Your task to perform on an android device: Toggle the flashlight Image 0: 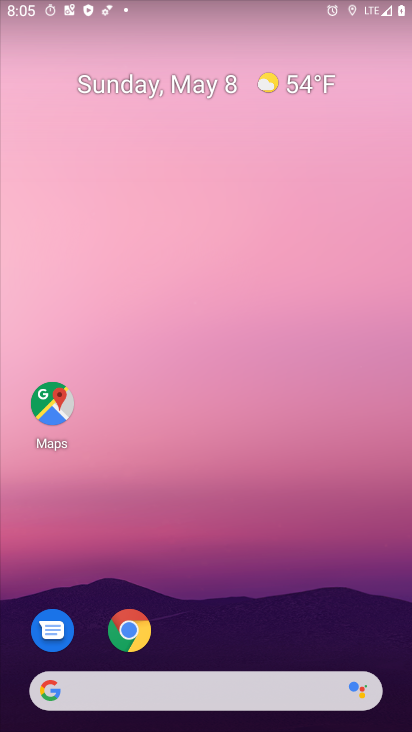
Step 0: drag from (215, 658) to (132, 2)
Your task to perform on an android device: Toggle the flashlight Image 1: 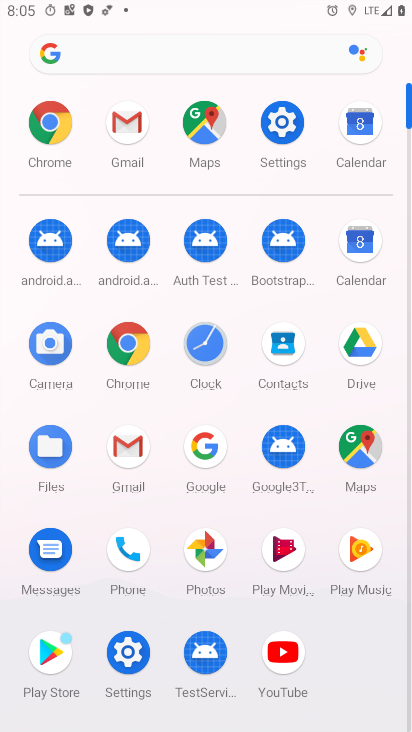
Step 1: click (276, 119)
Your task to perform on an android device: Toggle the flashlight Image 2: 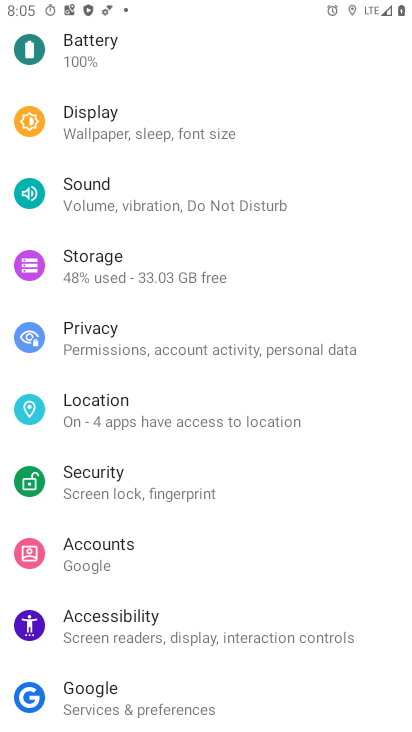
Step 2: drag from (137, 563) to (75, 63)
Your task to perform on an android device: Toggle the flashlight Image 3: 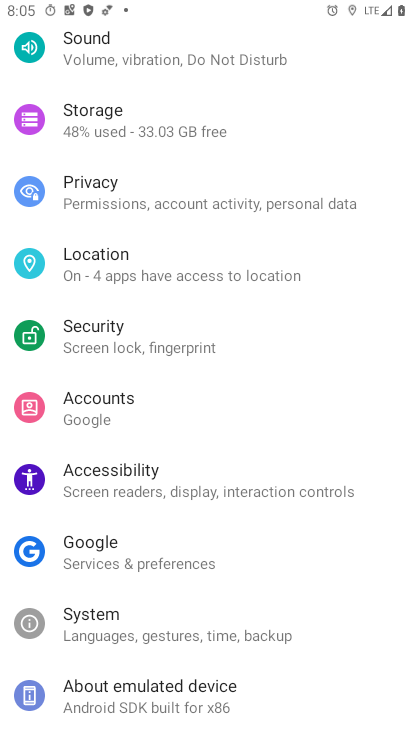
Step 3: drag from (145, 134) to (124, 717)
Your task to perform on an android device: Toggle the flashlight Image 4: 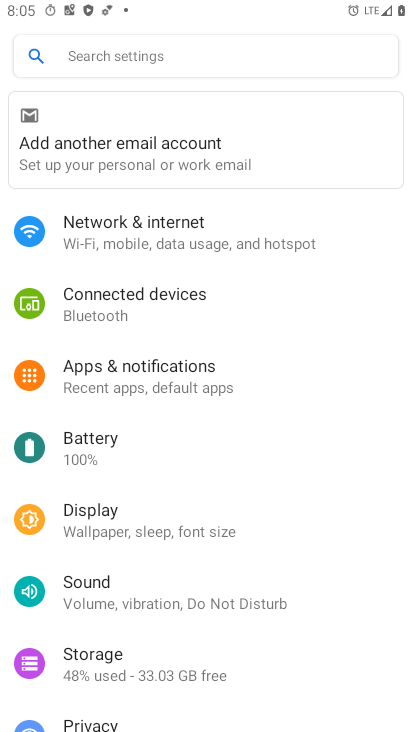
Step 4: click (118, 59)
Your task to perform on an android device: Toggle the flashlight Image 5: 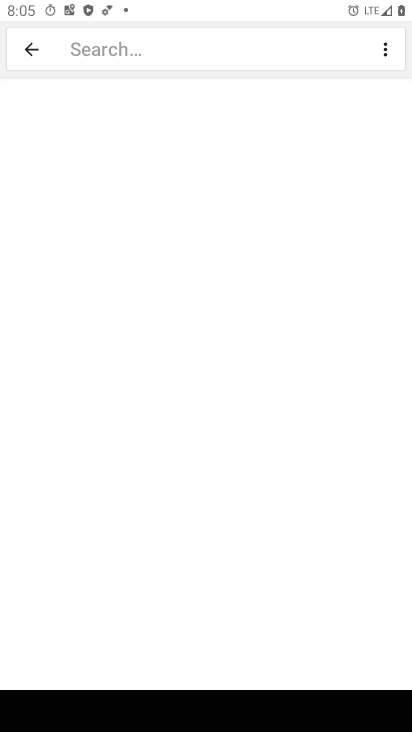
Step 5: type ""
Your task to perform on an android device: Toggle the flashlight Image 6: 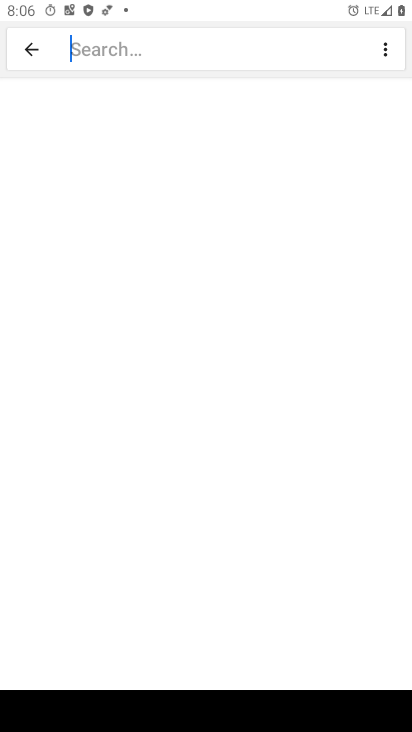
Step 6: type "flashlight"
Your task to perform on an android device: Toggle the flashlight Image 7: 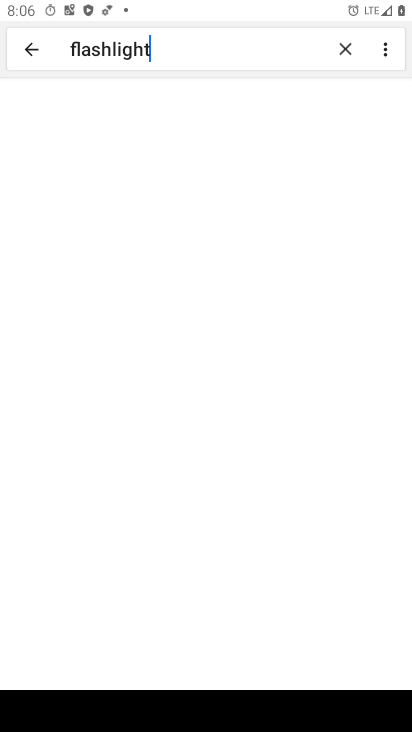
Step 7: type ""
Your task to perform on an android device: Toggle the flashlight Image 8: 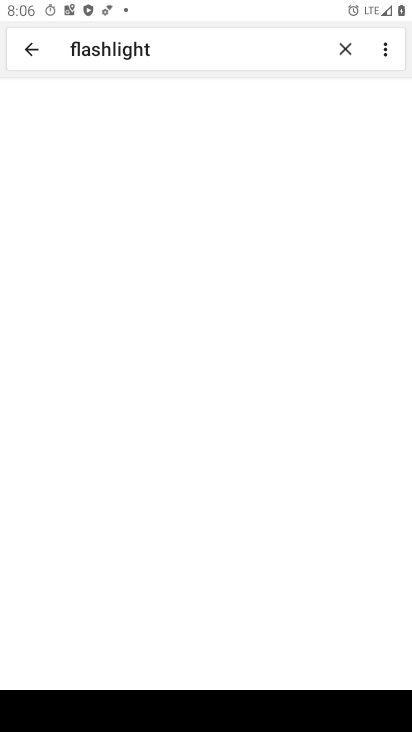
Step 8: task complete